Your task to perform on an android device: turn off notifications in google photos Image 0: 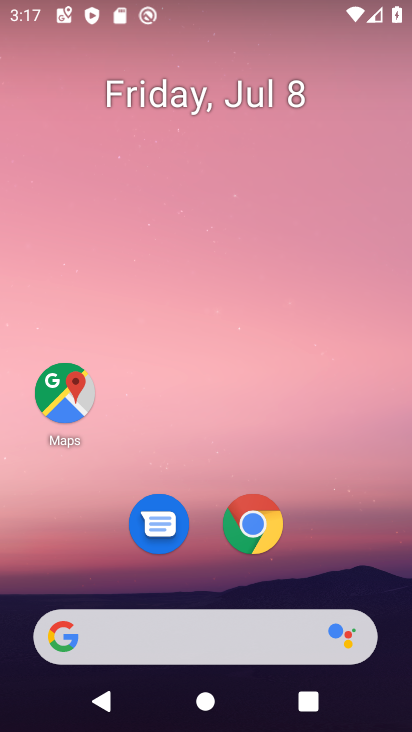
Step 0: drag from (188, 499) to (249, 128)
Your task to perform on an android device: turn off notifications in google photos Image 1: 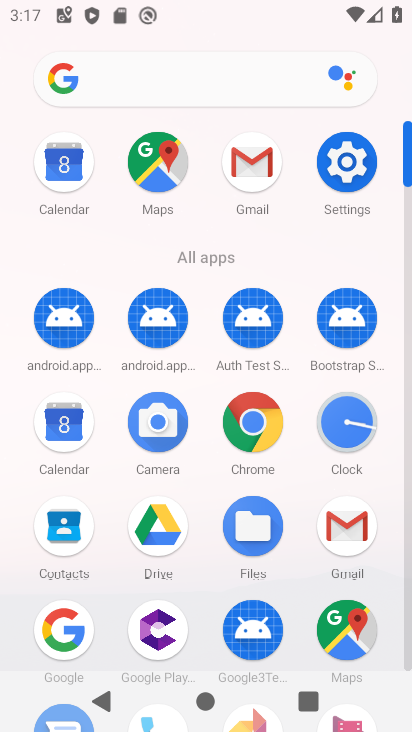
Step 1: drag from (212, 519) to (232, 251)
Your task to perform on an android device: turn off notifications in google photos Image 2: 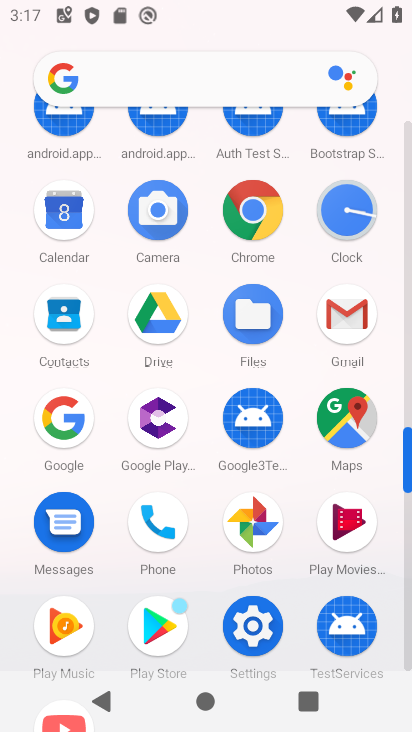
Step 2: click (245, 519)
Your task to perform on an android device: turn off notifications in google photos Image 3: 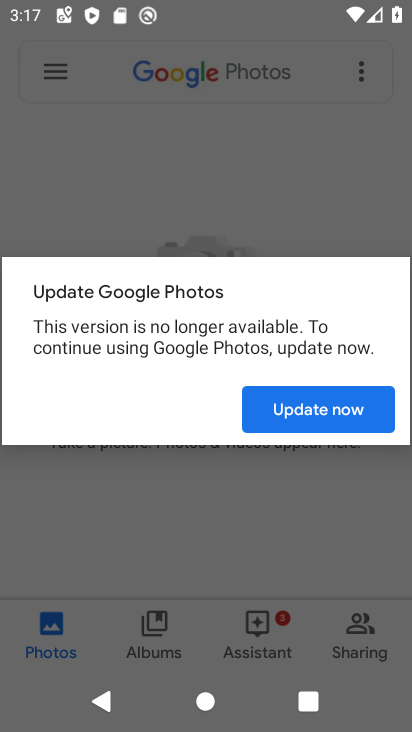
Step 3: click (296, 412)
Your task to perform on an android device: turn off notifications in google photos Image 4: 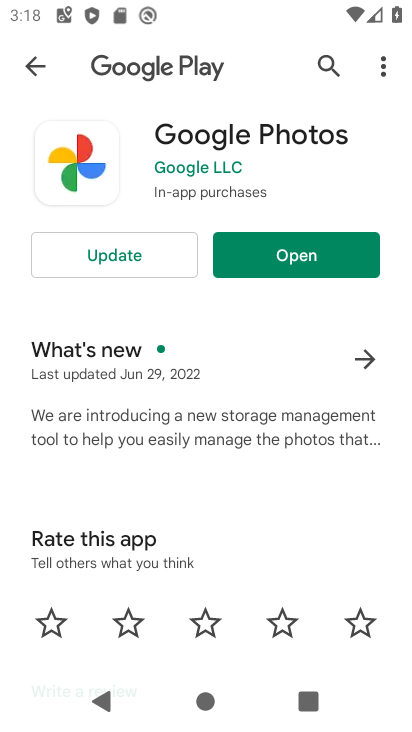
Step 4: click (329, 262)
Your task to perform on an android device: turn off notifications in google photos Image 5: 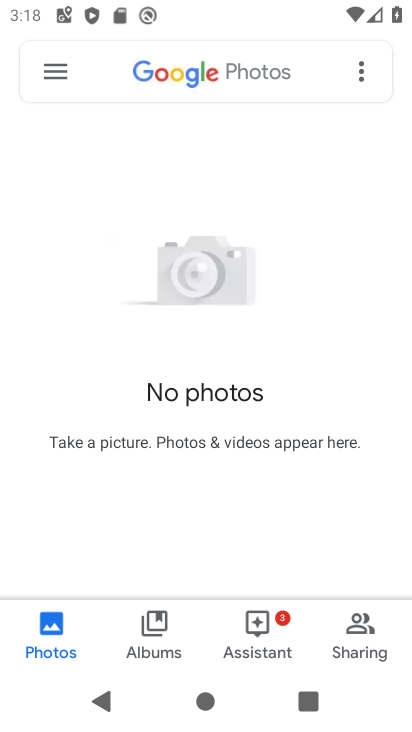
Step 5: click (58, 80)
Your task to perform on an android device: turn off notifications in google photos Image 6: 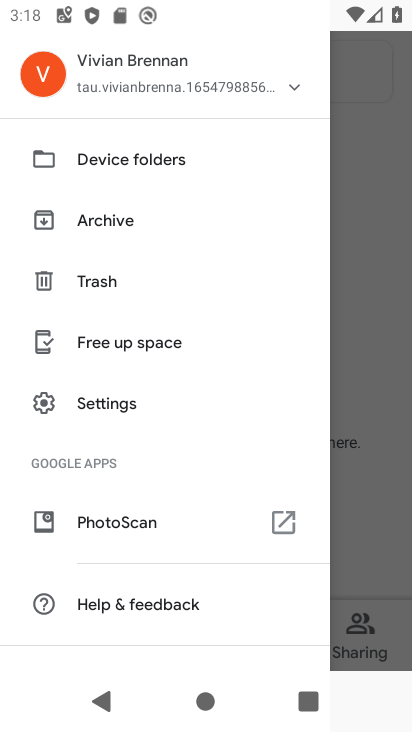
Step 6: click (106, 403)
Your task to perform on an android device: turn off notifications in google photos Image 7: 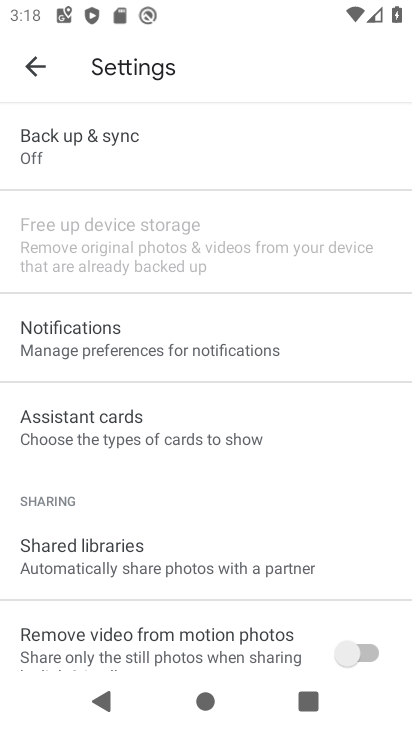
Step 7: click (238, 349)
Your task to perform on an android device: turn off notifications in google photos Image 8: 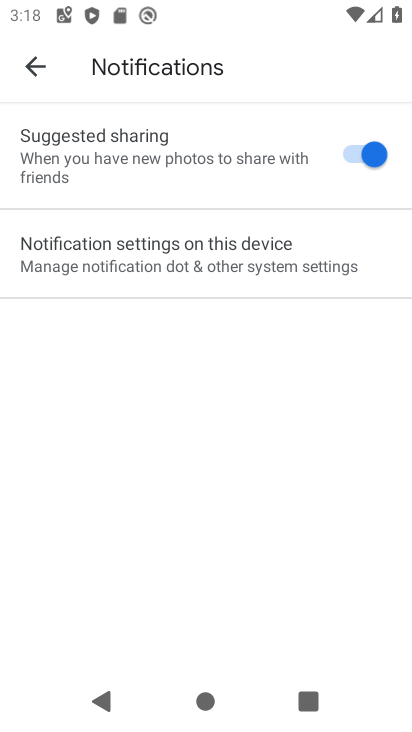
Step 8: click (358, 144)
Your task to perform on an android device: turn off notifications in google photos Image 9: 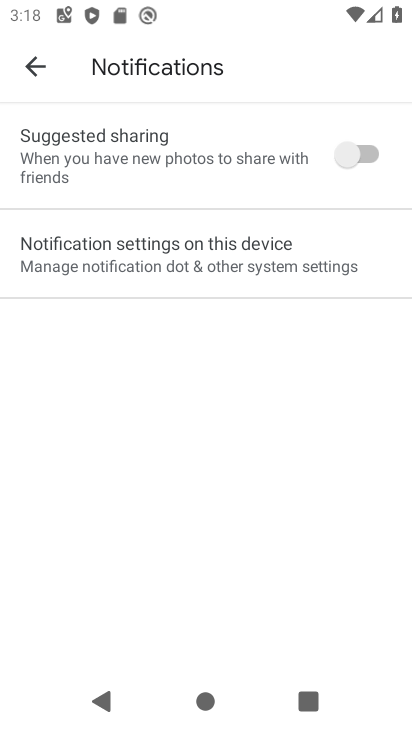
Step 9: task complete